Your task to perform on an android device: turn on priority inbox in the gmail app Image 0: 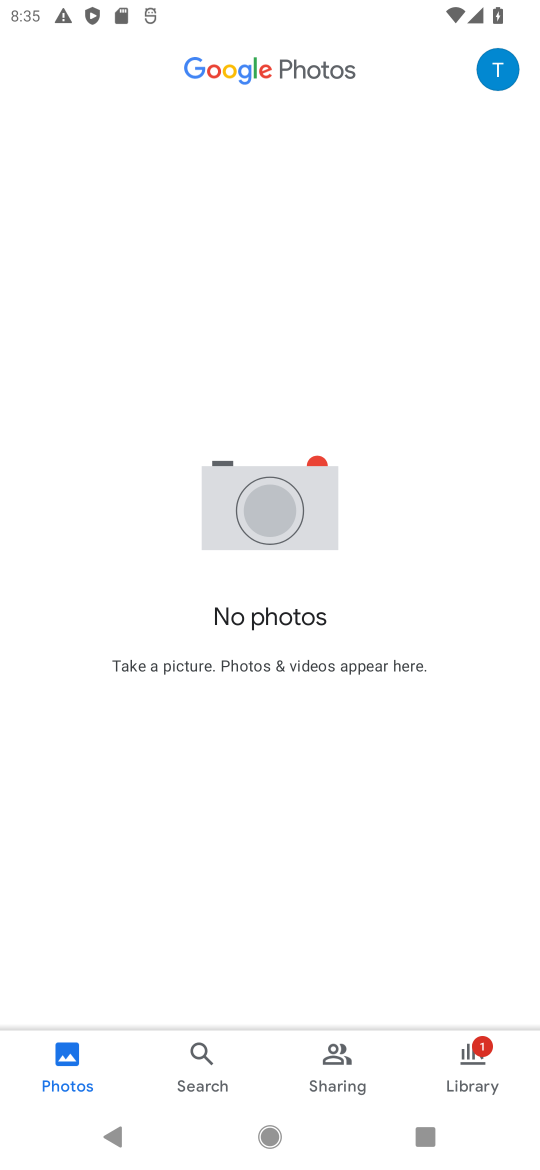
Step 0: press home button
Your task to perform on an android device: turn on priority inbox in the gmail app Image 1: 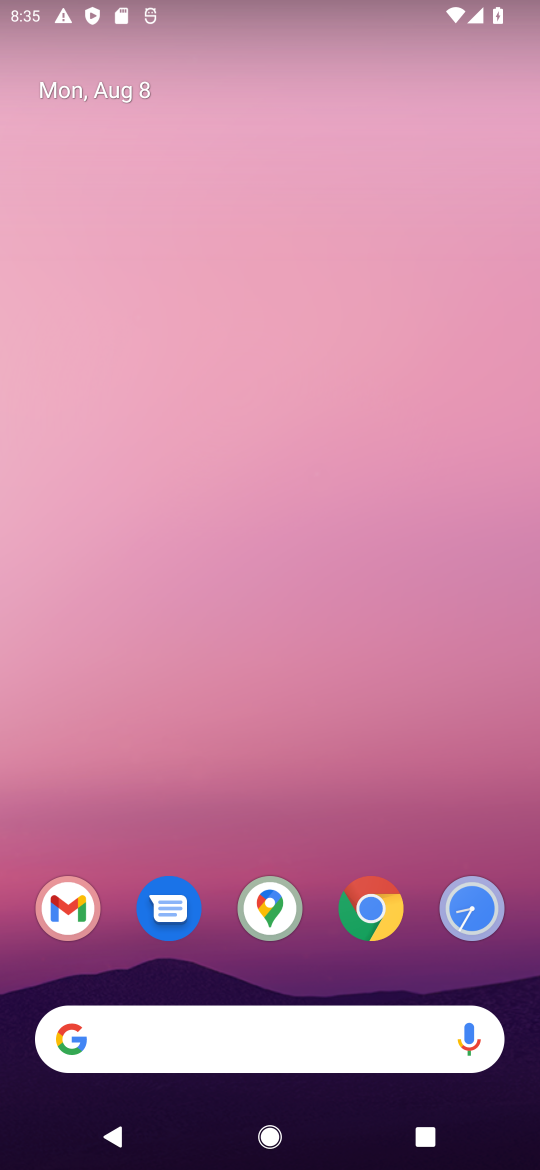
Step 1: click (95, 909)
Your task to perform on an android device: turn on priority inbox in the gmail app Image 2: 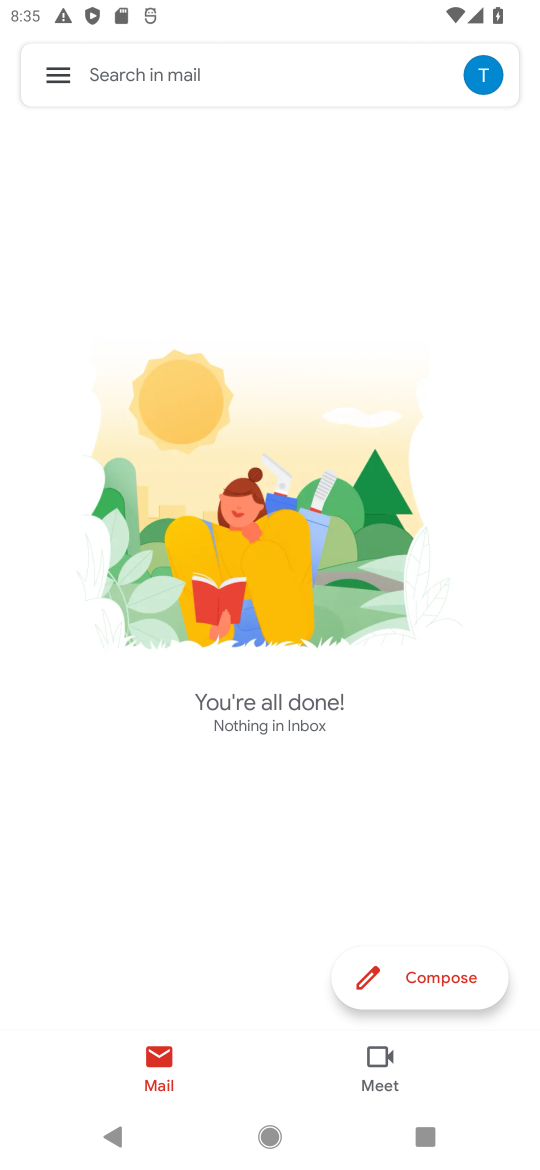
Step 2: click (76, 94)
Your task to perform on an android device: turn on priority inbox in the gmail app Image 3: 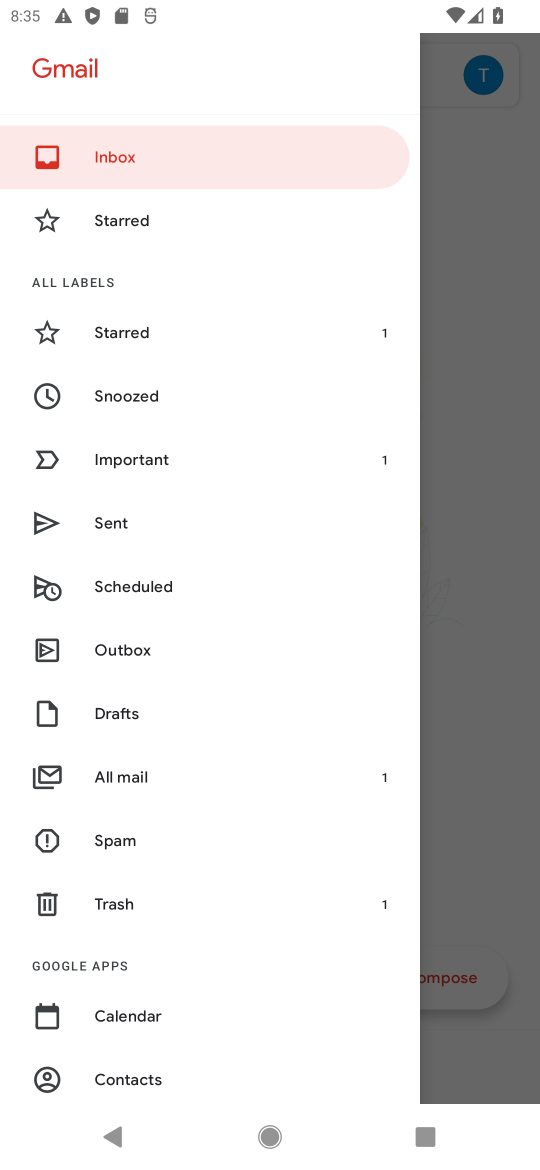
Step 3: drag from (266, 1011) to (310, 98)
Your task to perform on an android device: turn on priority inbox in the gmail app Image 4: 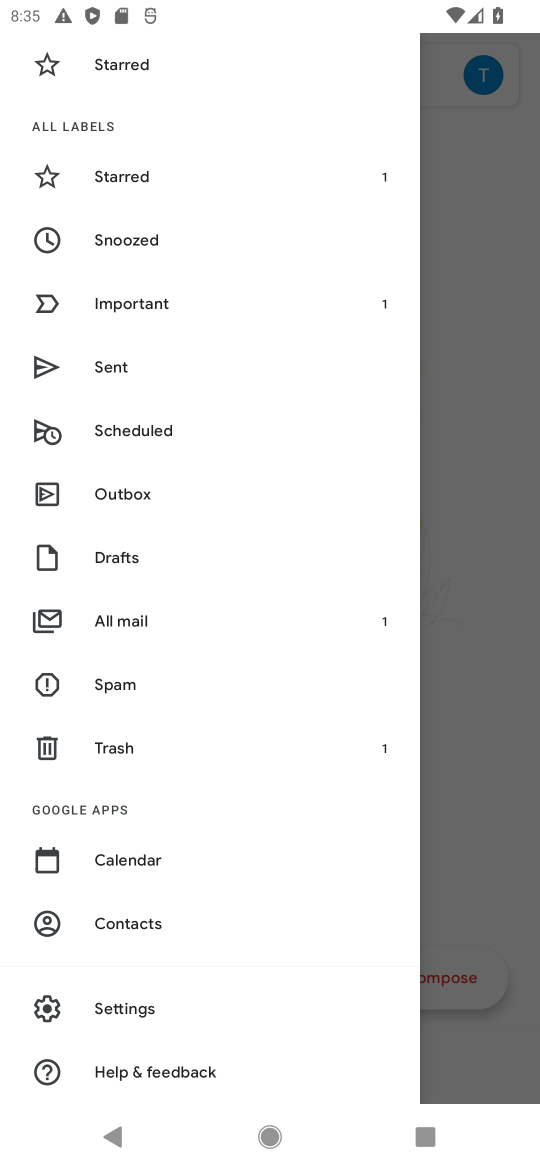
Step 4: click (75, 1015)
Your task to perform on an android device: turn on priority inbox in the gmail app Image 5: 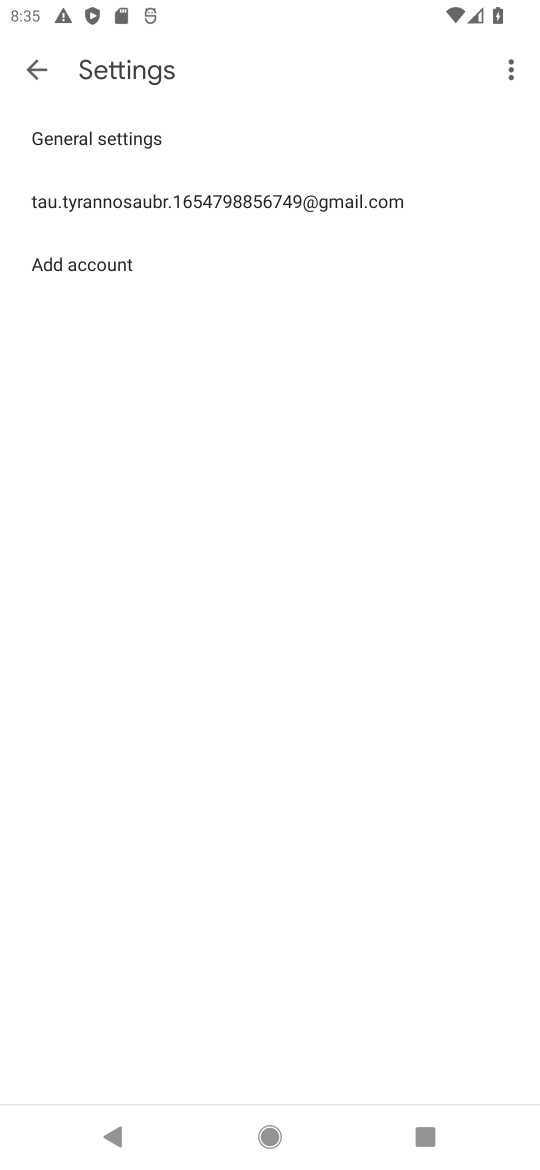
Step 5: click (221, 184)
Your task to perform on an android device: turn on priority inbox in the gmail app Image 6: 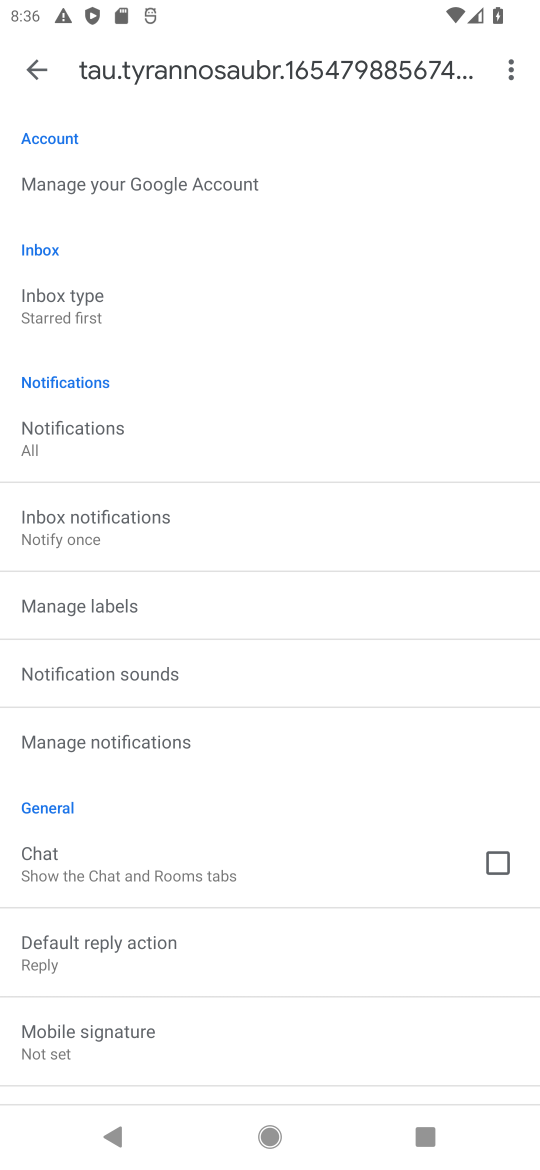
Step 6: click (203, 339)
Your task to perform on an android device: turn on priority inbox in the gmail app Image 7: 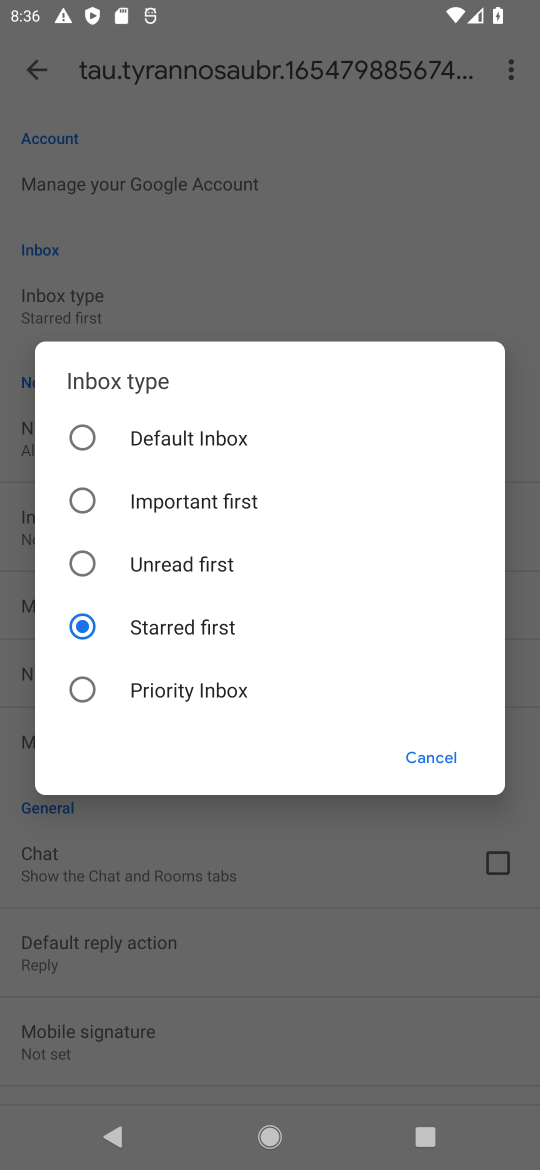
Step 7: click (226, 693)
Your task to perform on an android device: turn on priority inbox in the gmail app Image 8: 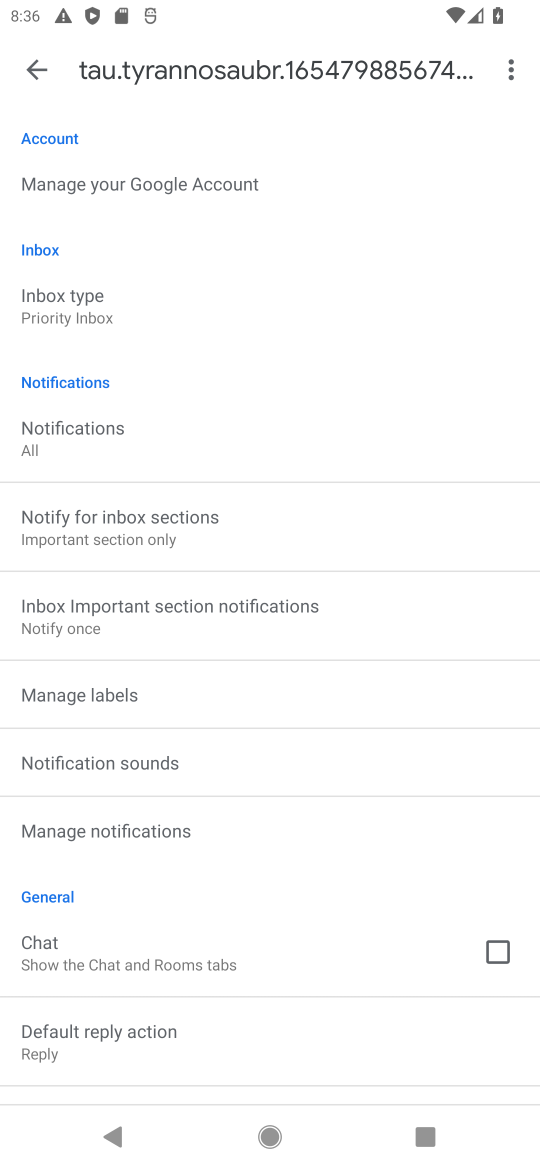
Step 8: task complete